Your task to perform on an android device: Open Chrome and go to settings Image 0: 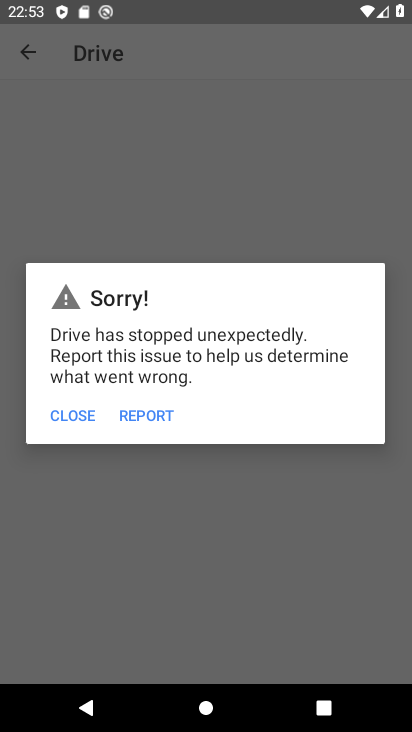
Step 0: press home button
Your task to perform on an android device: Open Chrome and go to settings Image 1: 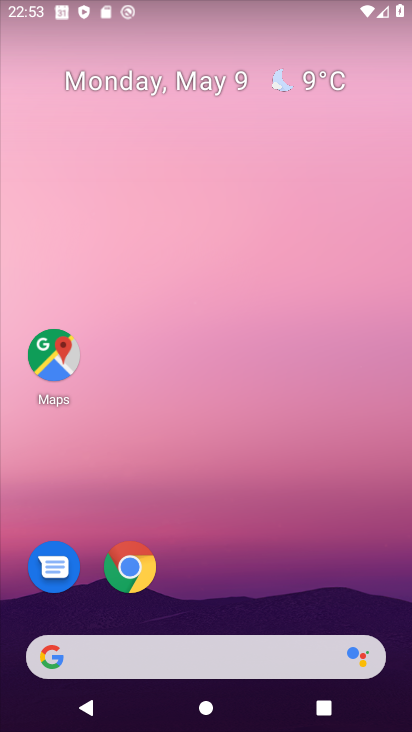
Step 1: click (128, 566)
Your task to perform on an android device: Open Chrome and go to settings Image 2: 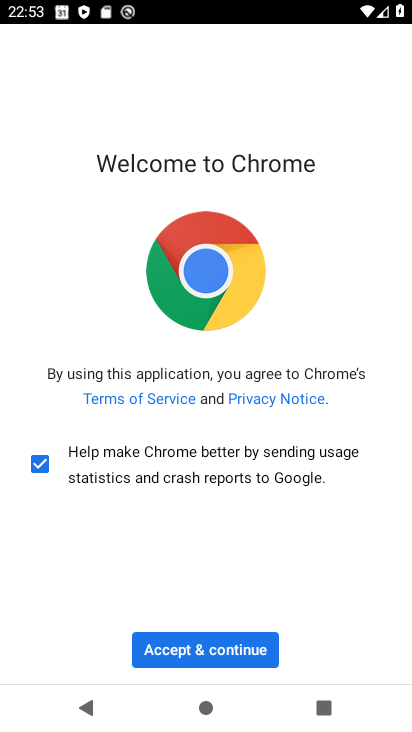
Step 2: click (199, 649)
Your task to perform on an android device: Open Chrome and go to settings Image 3: 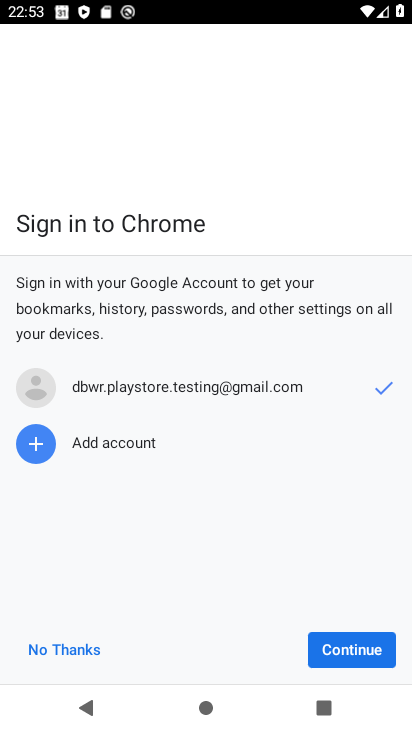
Step 3: click (344, 651)
Your task to perform on an android device: Open Chrome and go to settings Image 4: 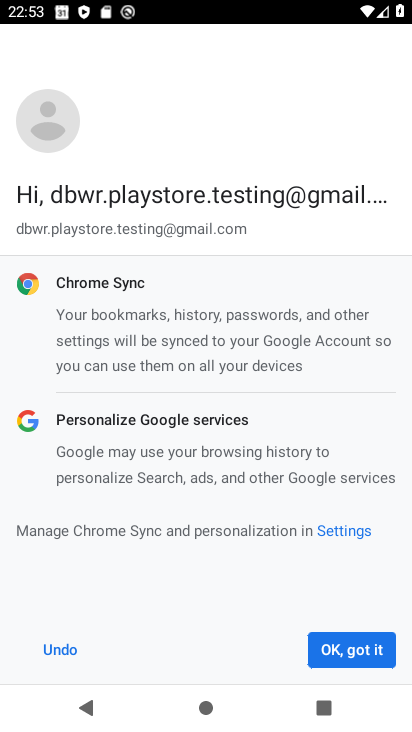
Step 4: click (331, 648)
Your task to perform on an android device: Open Chrome and go to settings Image 5: 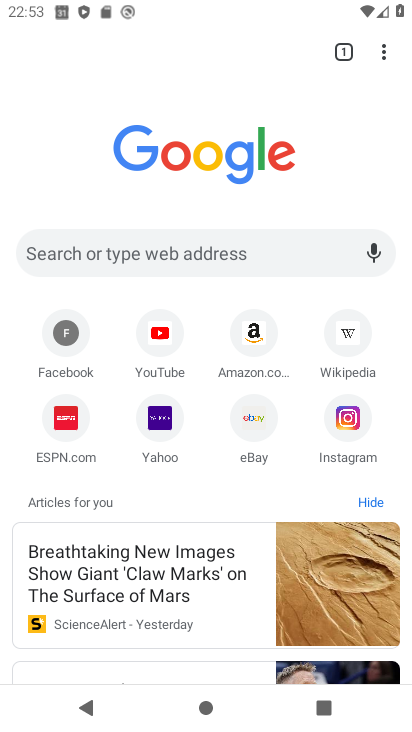
Step 5: click (383, 52)
Your task to perform on an android device: Open Chrome and go to settings Image 6: 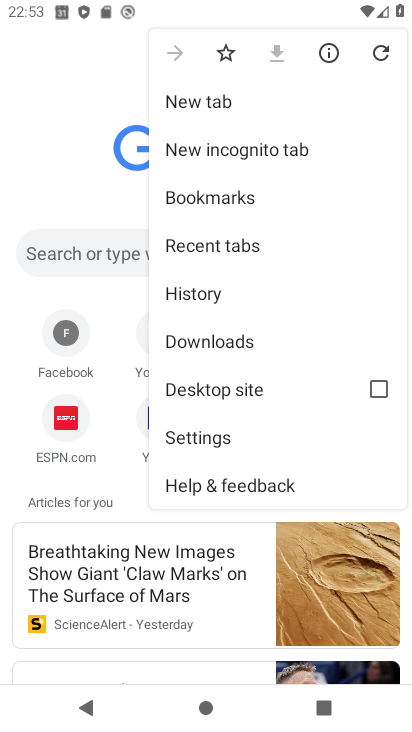
Step 6: click (201, 438)
Your task to perform on an android device: Open Chrome and go to settings Image 7: 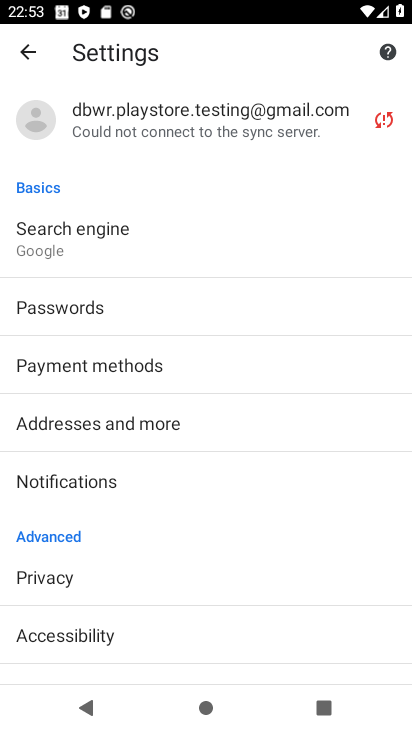
Step 7: task complete